Your task to perform on an android device: Go to location settings Image 0: 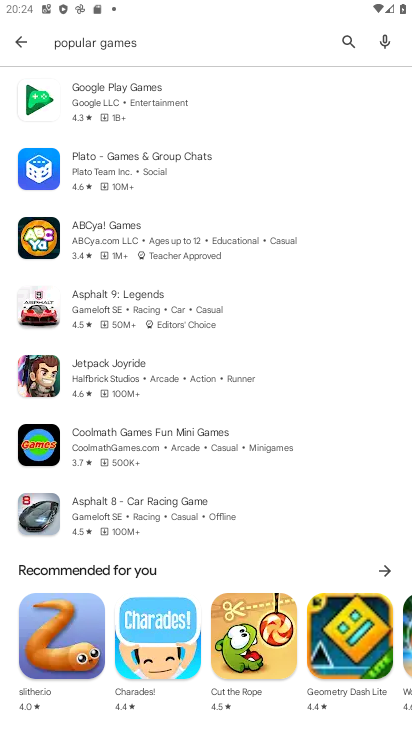
Step 0: press home button
Your task to perform on an android device: Go to location settings Image 1: 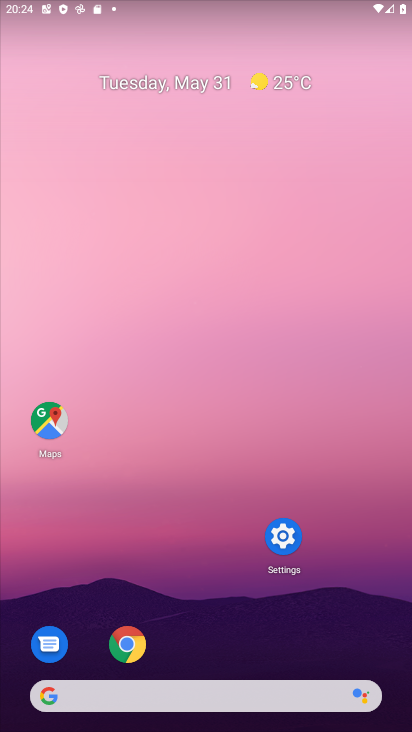
Step 1: click (293, 533)
Your task to perform on an android device: Go to location settings Image 2: 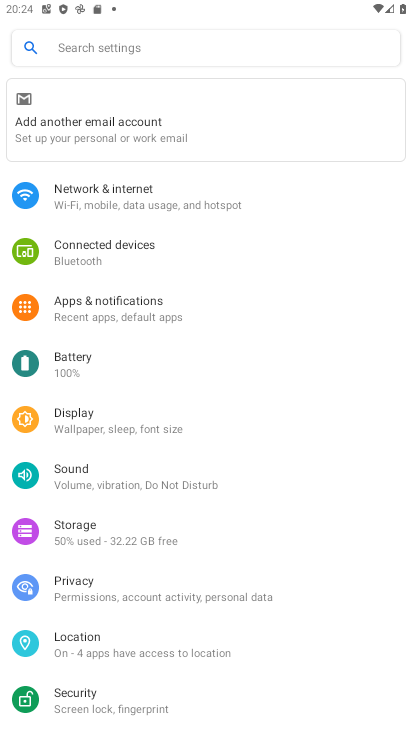
Step 2: click (164, 42)
Your task to perform on an android device: Go to location settings Image 3: 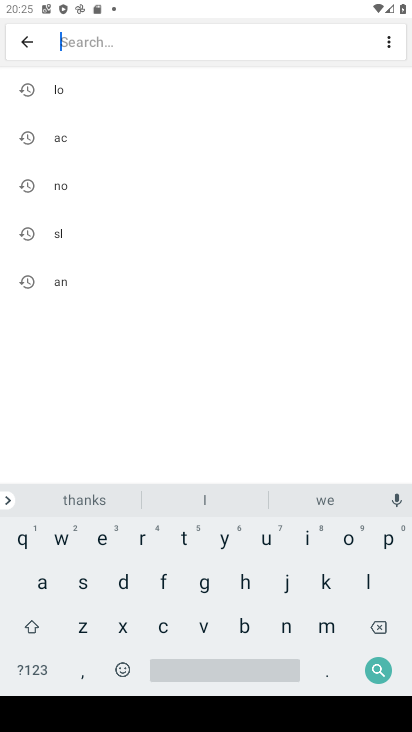
Step 3: click (86, 86)
Your task to perform on an android device: Go to location settings Image 4: 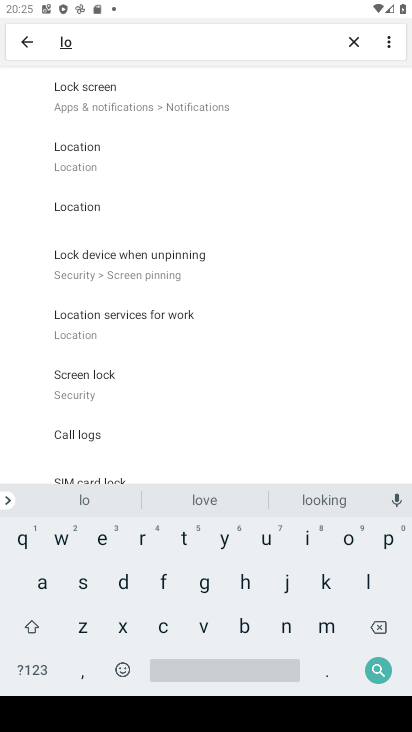
Step 4: click (62, 141)
Your task to perform on an android device: Go to location settings Image 5: 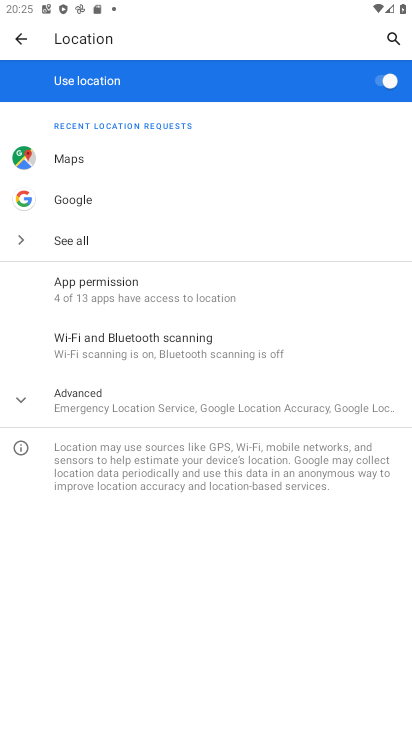
Step 5: task complete